Your task to perform on an android device: Search for a new phone on Amazon. Image 0: 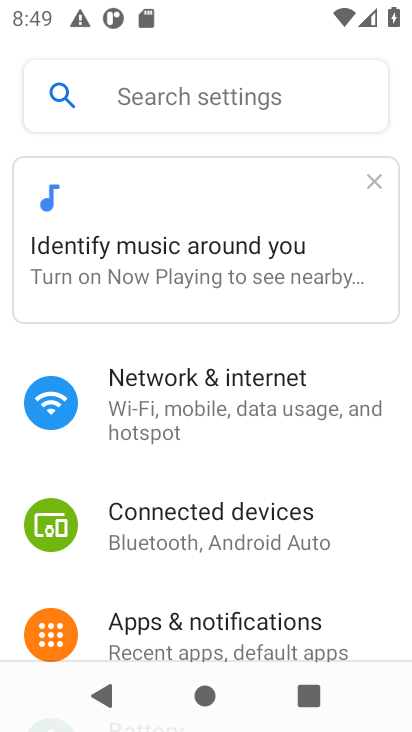
Step 0: task complete